Your task to perform on an android device: Open Google Chrome and open the bookmarks view Image 0: 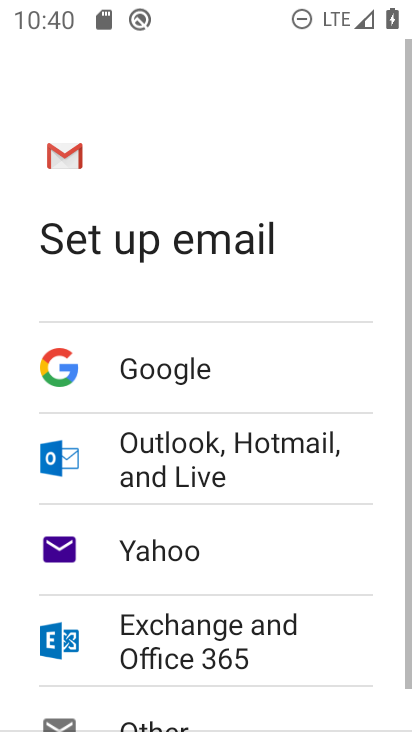
Step 0: press home button
Your task to perform on an android device: Open Google Chrome and open the bookmarks view Image 1: 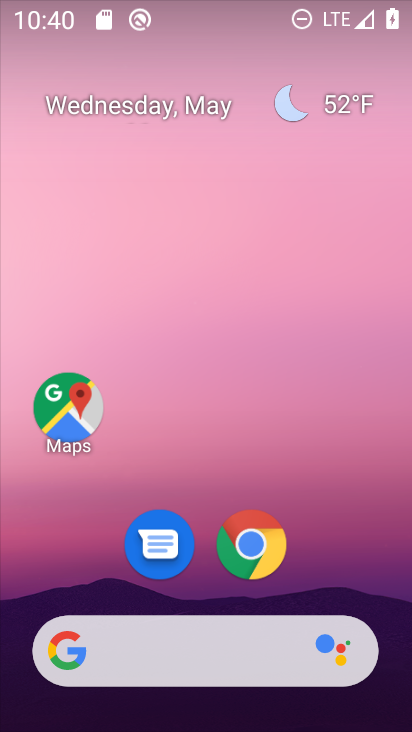
Step 1: click (248, 565)
Your task to perform on an android device: Open Google Chrome and open the bookmarks view Image 2: 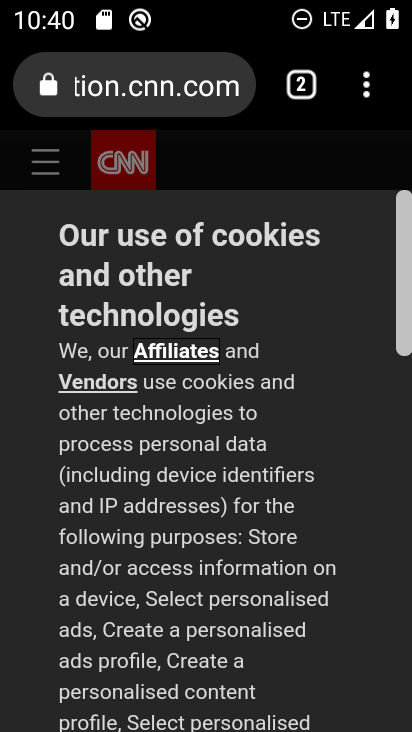
Step 2: click (376, 84)
Your task to perform on an android device: Open Google Chrome and open the bookmarks view Image 3: 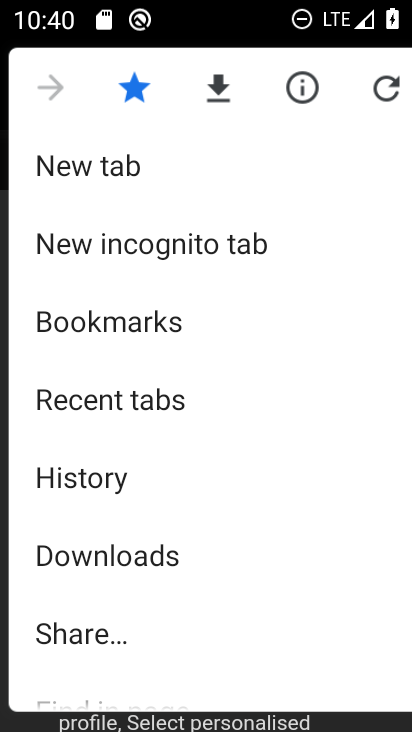
Step 3: click (112, 320)
Your task to perform on an android device: Open Google Chrome and open the bookmarks view Image 4: 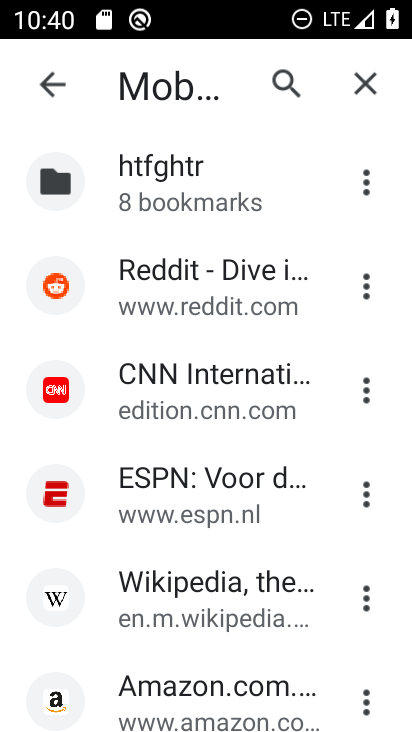
Step 4: task complete